Your task to perform on an android device: turn on wifi Image 0: 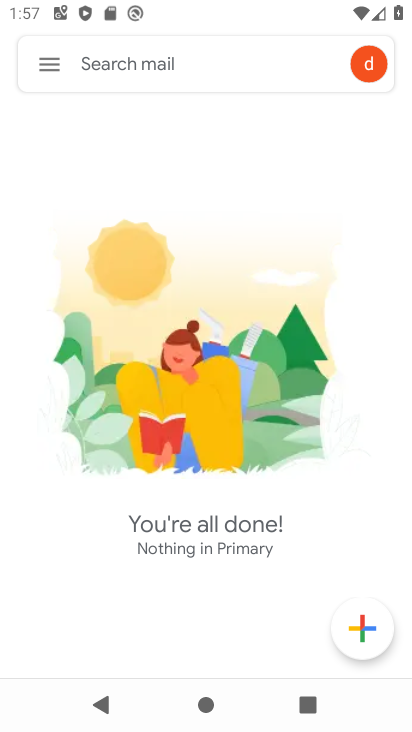
Step 0: press home button
Your task to perform on an android device: turn on wifi Image 1: 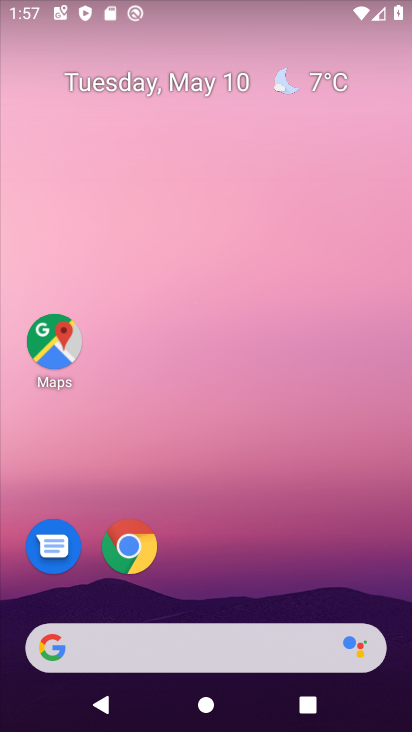
Step 1: drag from (340, 422) to (302, 85)
Your task to perform on an android device: turn on wifi Image 2: 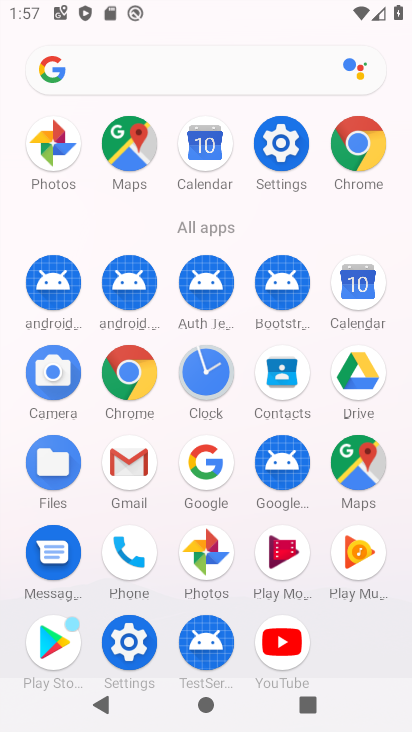
Step 2: click (272, 153)
Your task to perform on an android device: turn on wifi Image 3: 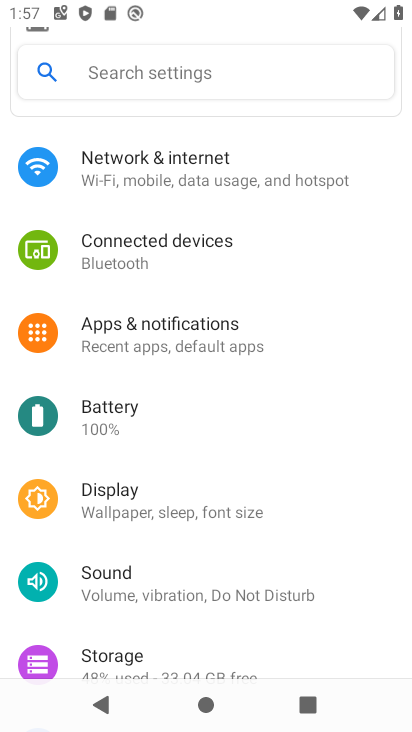
Step 3: click (193, 184)
Your task to perform on an android device: turn on wifi Image 4: 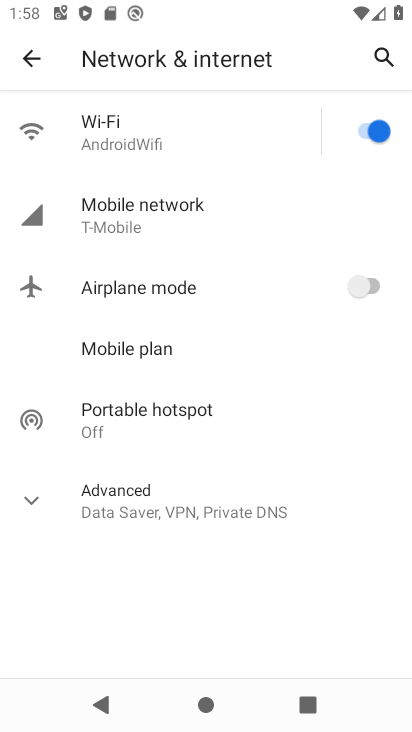
Step 4: task complete